Your task to perform on an android device: Go to sound settings Image 0: 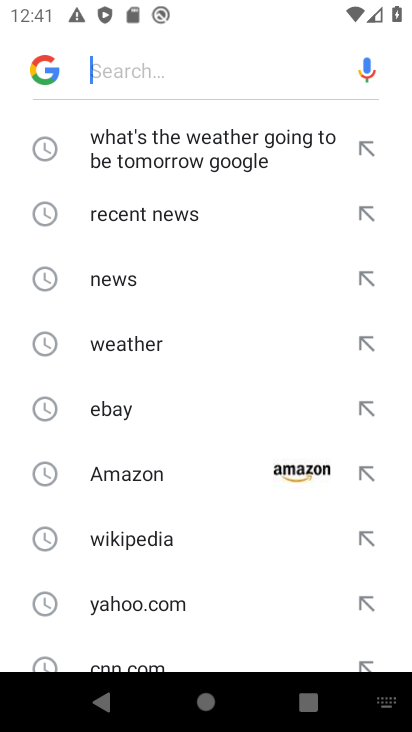
Step 0: press home button
Your task to perform on an android device: Go to sound settings Image 1: 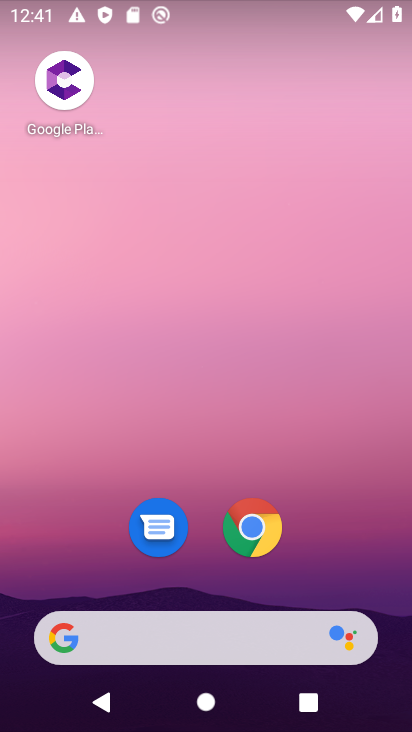
Step 1: drag from (195, 585) to (210, 90)
Your task to perform on an android device: Go to sound settings Image 2: 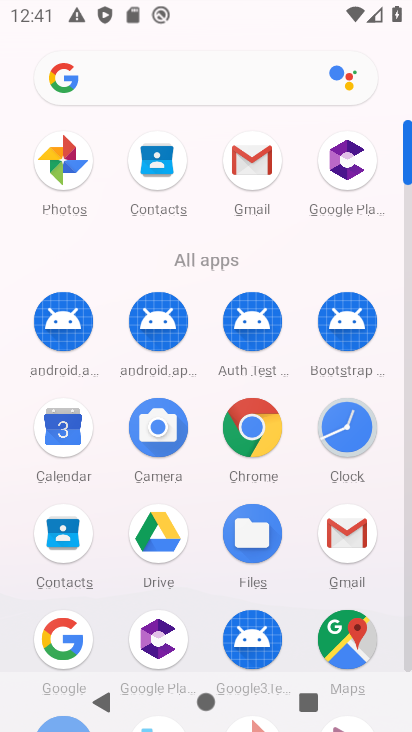
Step 2: drag from (208, 576) to (150, 90)
Your task to perform on an android device: Go to sound settings Image 3: 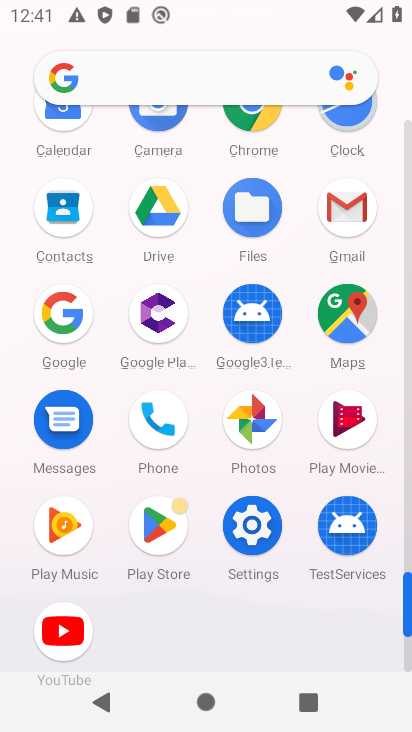
Step 3: click (255, 510)
Your task to perform on an android device: Go to sound settings Image 4: 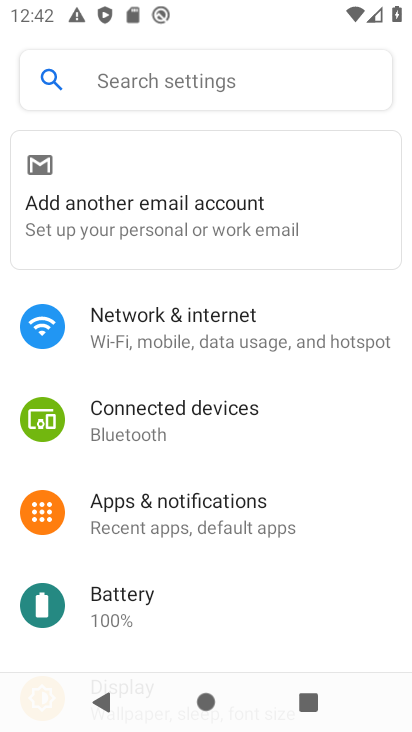
Step 4: drag from (213, 585) to (182, 172)
Your task to perform on an android device: Go to sound settings Image 5: 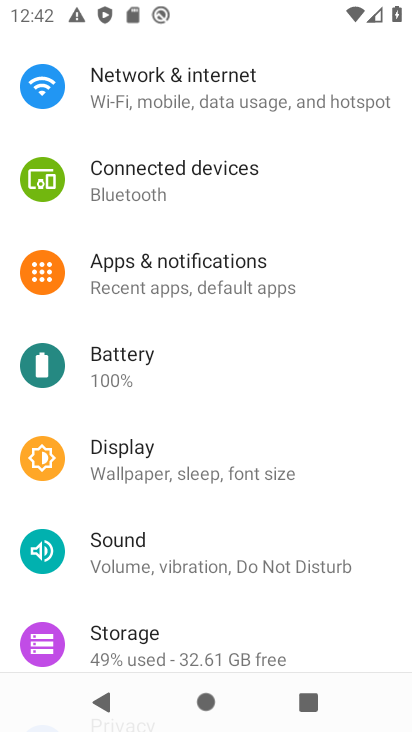
Step 5: click (138, 543)
Your task to perform on an android device: Go to sound settings Image 6: 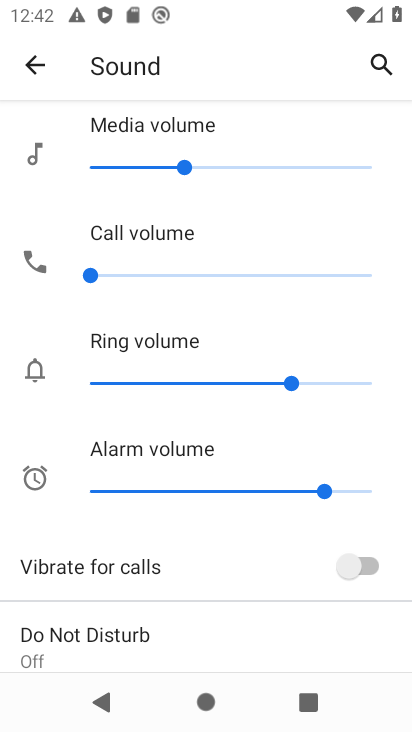
Step 6: task complete